Your task to perform on an android device: Open Youtube and go to "Your channel" Image 0: 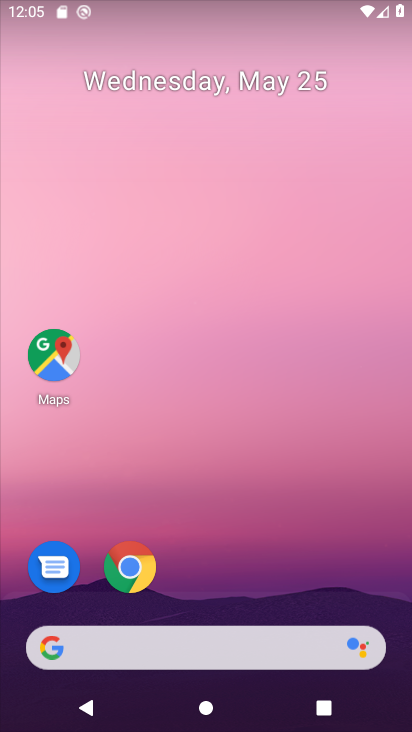
Step 0: drag from (260, 510) to (302, 137)
Your task to perform on an android device: Open Youtube and go to "Your channel" Image 1: 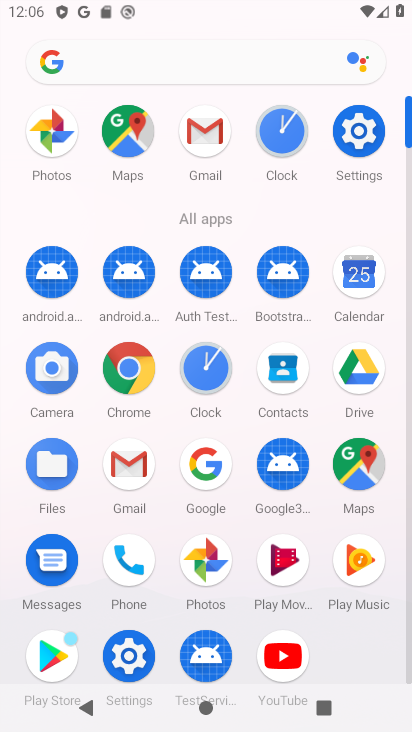
Step 1: drag from (316, 624) to (309, 496)
Your task to perform on an android device: Open Youtube and go to "Your channel" Image 2: 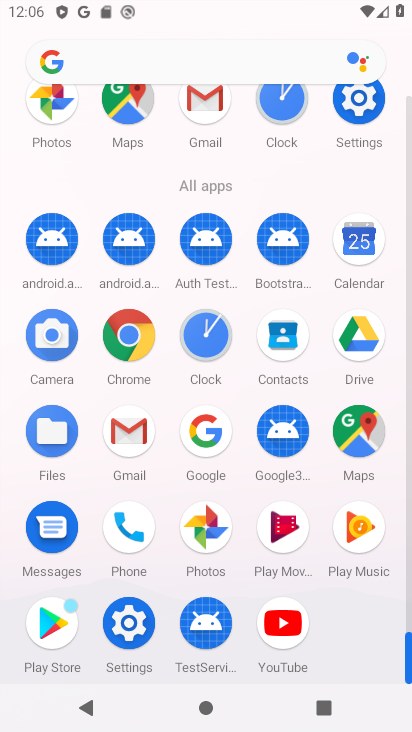
Step 2: click (283, 620)
Your task to perform on an android device: Open Youtube and go to "Your channel" Image 3: 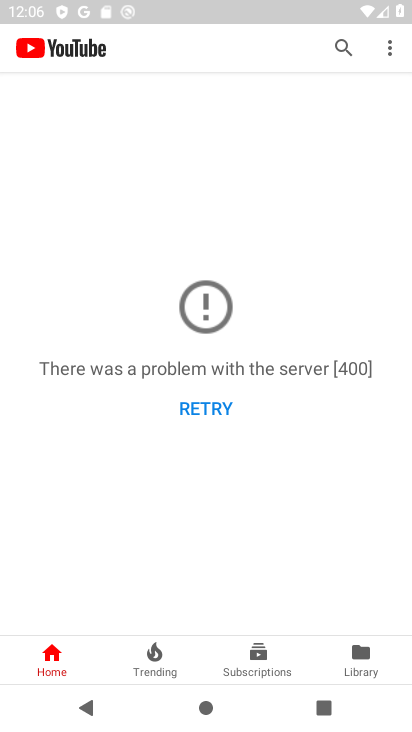
Step 3: click (215, 415)
Your task to perform on an android device: Open Youtube and go to "Your channel" Image 4: 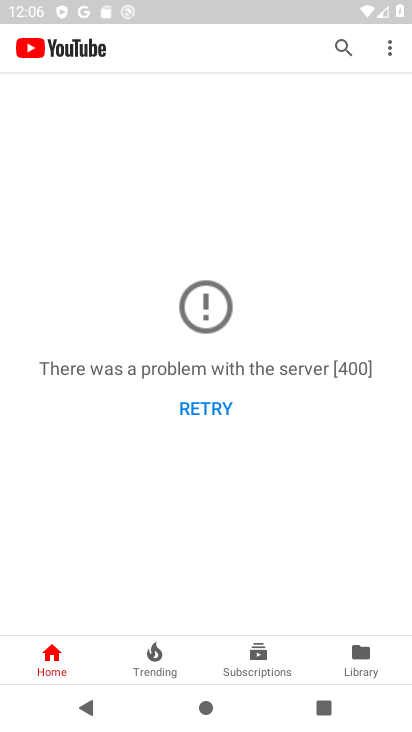
Step 4: click (215, 415)
Your task to perform on an android device: Open Youtube and go to "Your channel" Image 5: 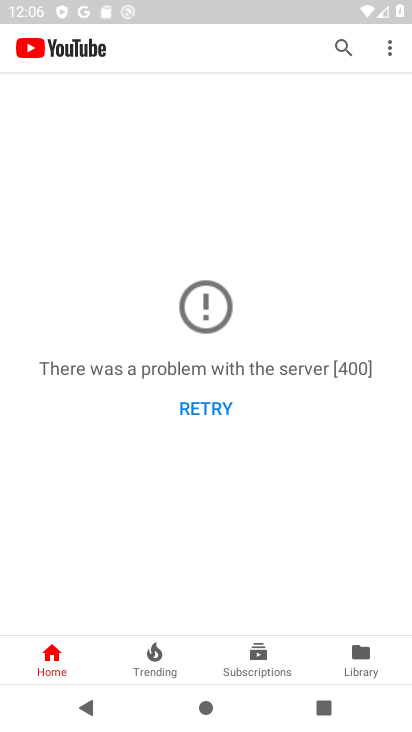
Step 5: task complete